Your task to perform on an android device: snooze an email in the gmail app Image 0: 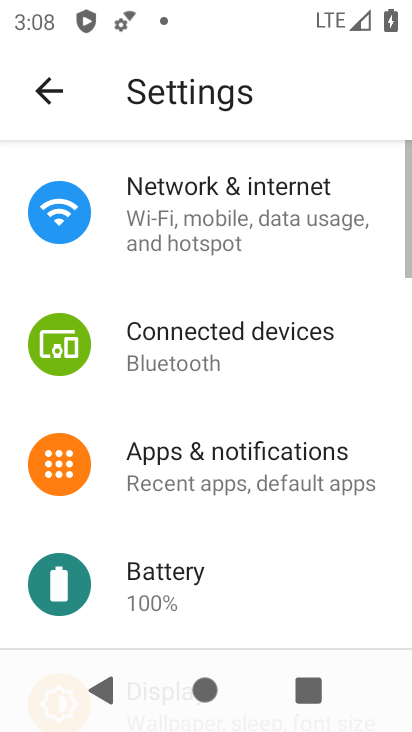
Step 0: press home button
Your task to perform on an android device: snooze an email in the gmail app Image 1: 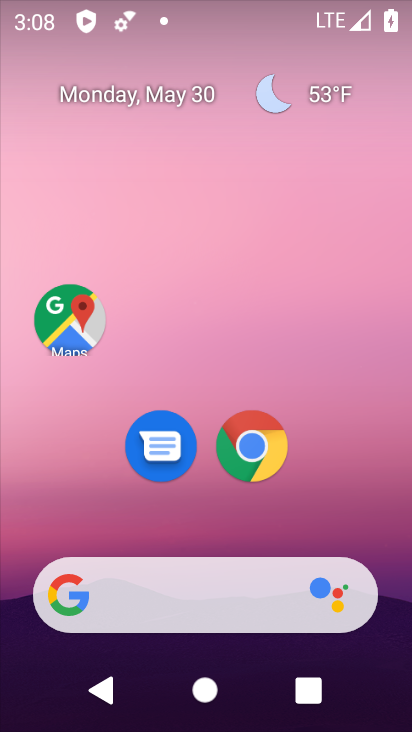
Step 1: drag from (369, 527) to (233, 101)
Your task to perform on an android device: snooze an email in the gmail app Image 2: 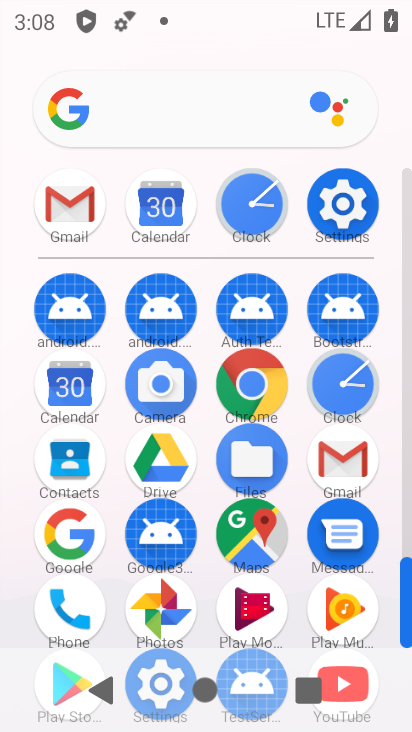
Step 2: click (70, 201)
Your task to perform on an android device: snooze an email in the gmail app Image 3: 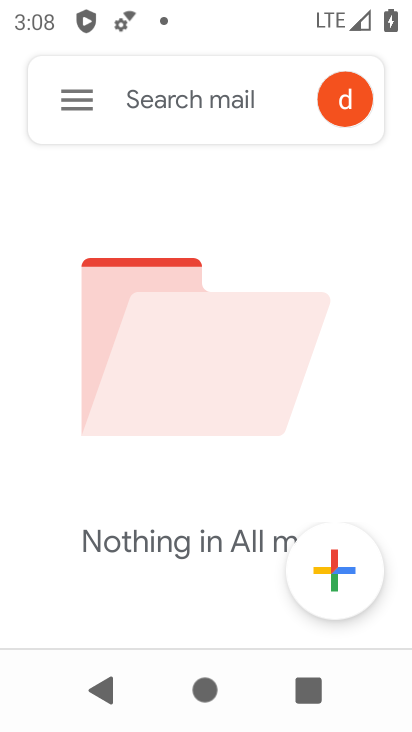
Step 3: click (77, 103)
Your task to perform on an android device: snooze an email in the gmail app Image 4: 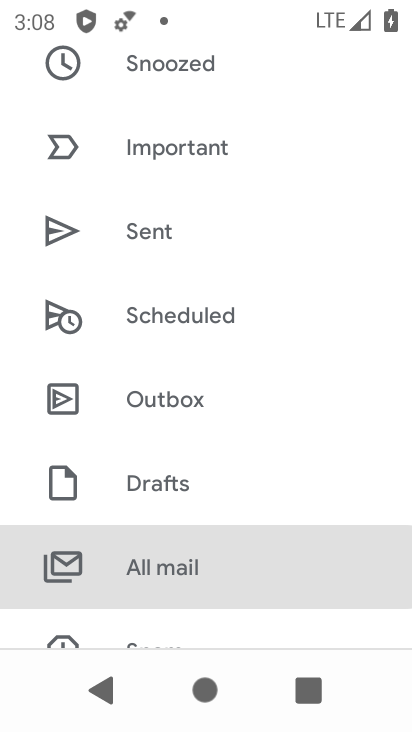
Step 4: drag from (208, 264) to (226, 461)
Your task to perform on an android device: snooze an email in the gmail app Image 5: 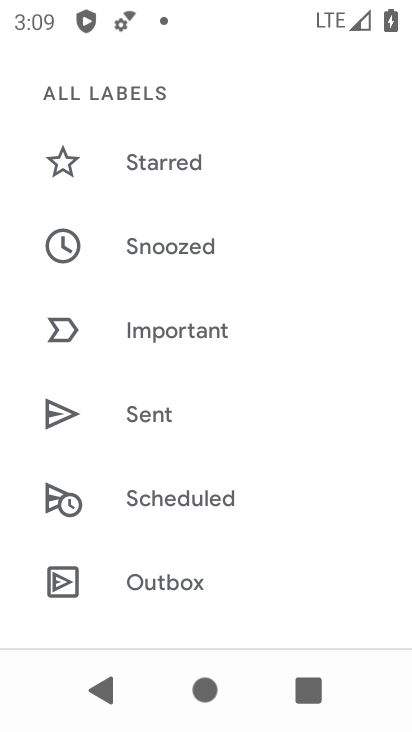
Step 5: click (208, 258)
Your task to perform on an android device: snooze an email in the gmail app Image 6: 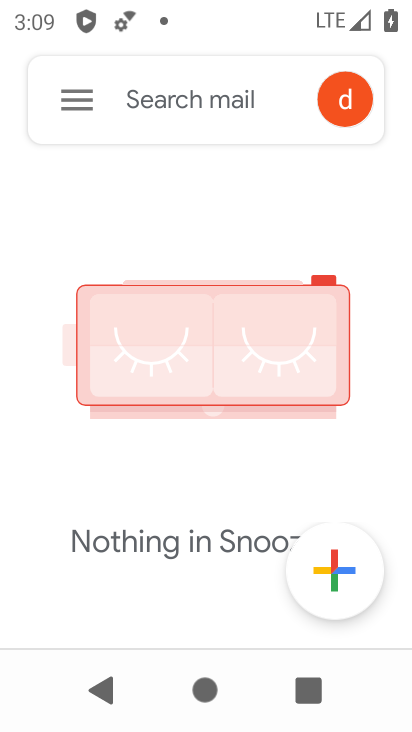
Step 6: task complete